Your task to perform on an android device: What's on my calendar tomorrow? Image 0: 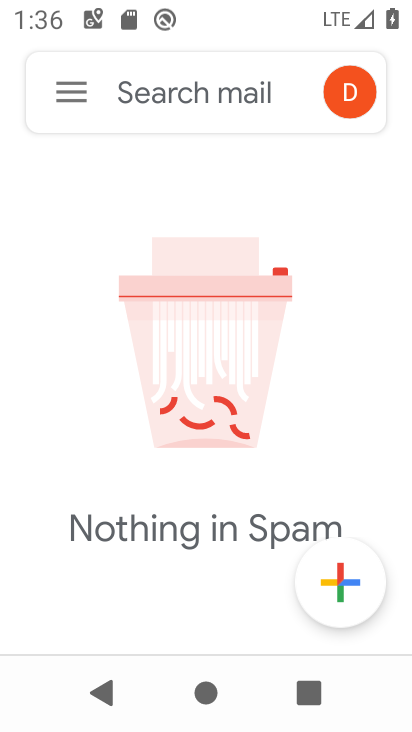
Step 0: press home button
Your task to perform on an android device: What's on my calendar tomorrow? Image 1: 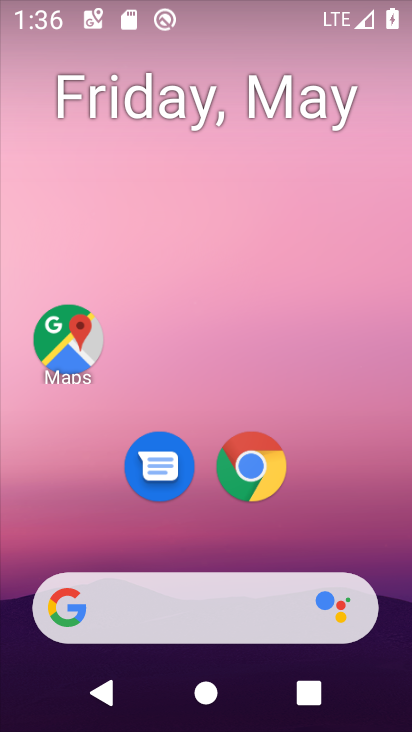
Step 1: drag from (380, 539) to (409, 432)
Your task to perform on an android device: What's on my calendar tomorrow? Image 2: 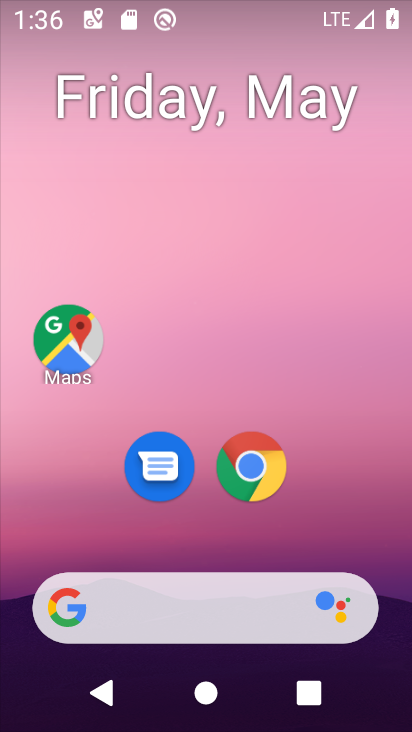
Step 2: drag from (383, 498) to (411, 201)
Your task to perform on an android device: What's on my calendar tomorrow? Image 3: 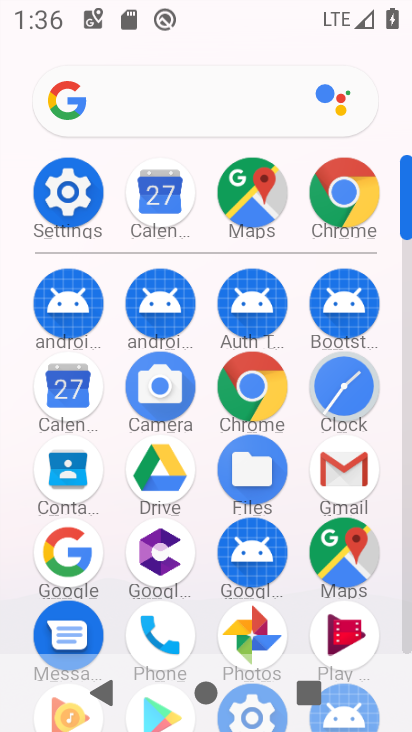
Step 3: click (172, 197)
Your task to perform on an android device: What's on my calendar tomorrow? Image 4: 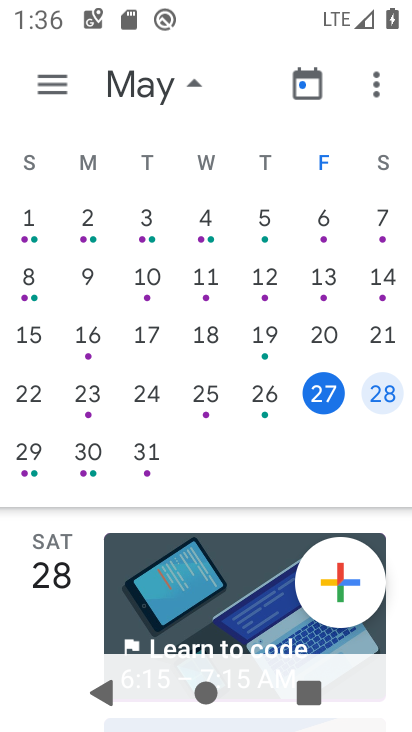
Step 4: click (373, 401)
Your task to perform on an android device: What's on my calendar tomorrow? Image 5: 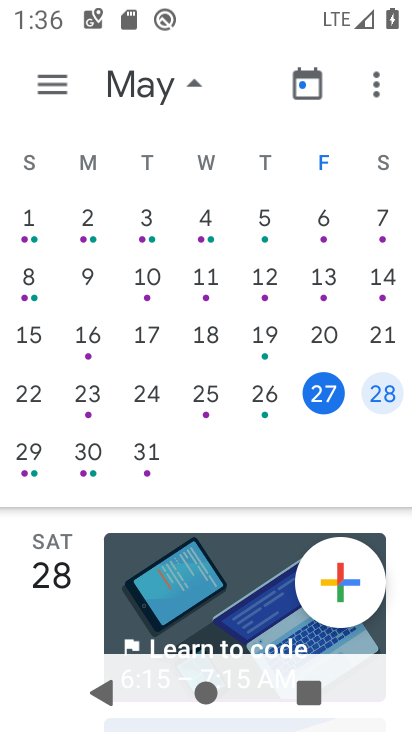
Step 5: task complete